Your task to perform on an android device: turn on notifications settings in the gmail app Image 0: 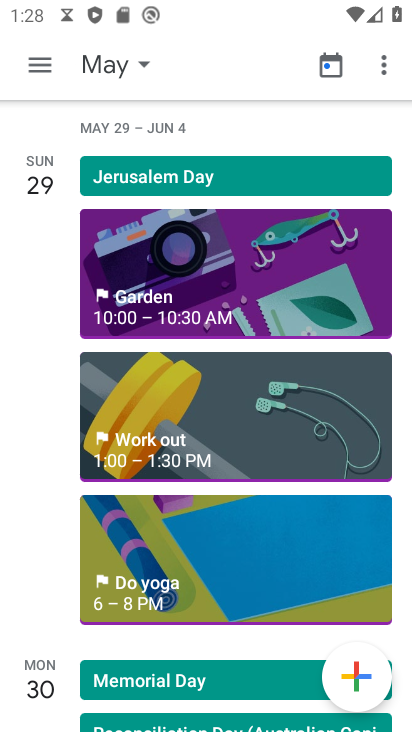
Step 0: press home button
Your task to perform on an android device: turn on notifications settings in the gmail app Image 1: 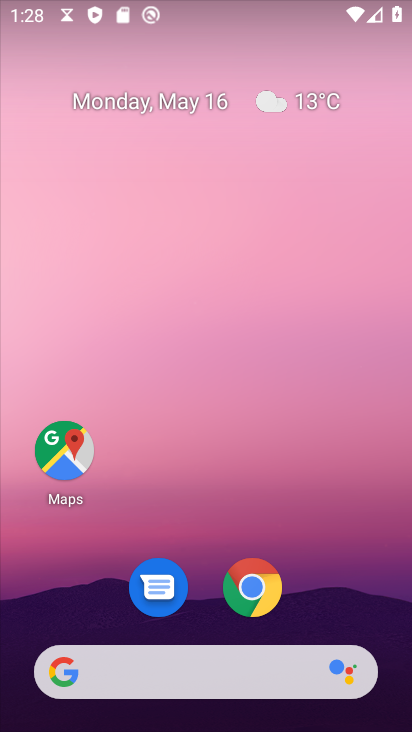
Step 1: drag from (243, 641) to (222, 194)
Your task to perform on an android device: turn on notifications settings in the gmail app Image 2: 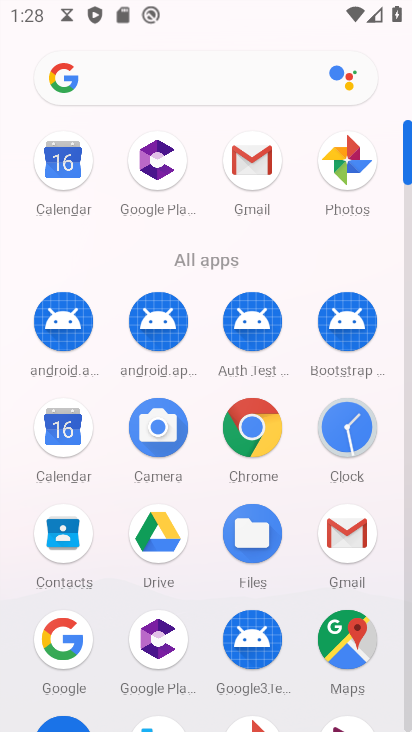
Step 2: click (243, 170)
Your task to perform on an android device: turn on notifications settings in the gmail app Image 3: 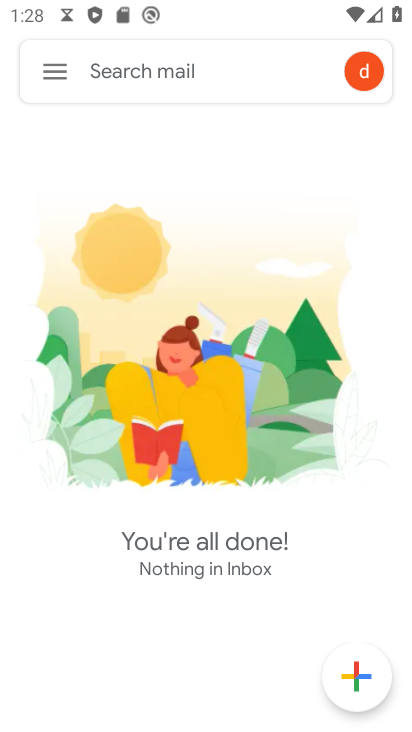
Step 3: click (50, 74)
Your task to perform on an android device: turn on notifications settings in the gmail app Image 4: 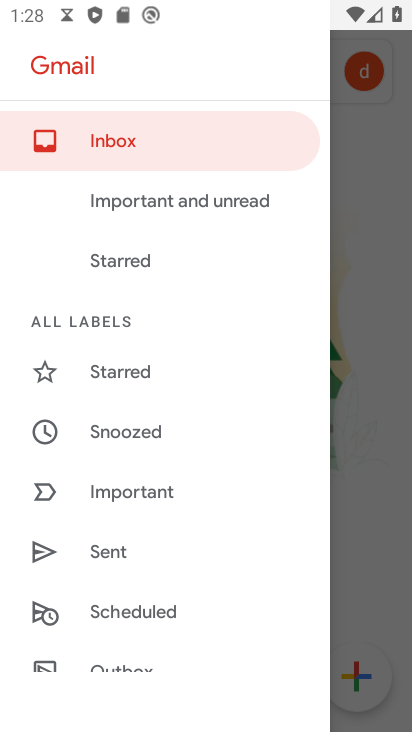
Step 4: drag from (150, 669) to (154, 303)
Your task to perform on an android device: turn on notifications settings in the gmail app Image 5: 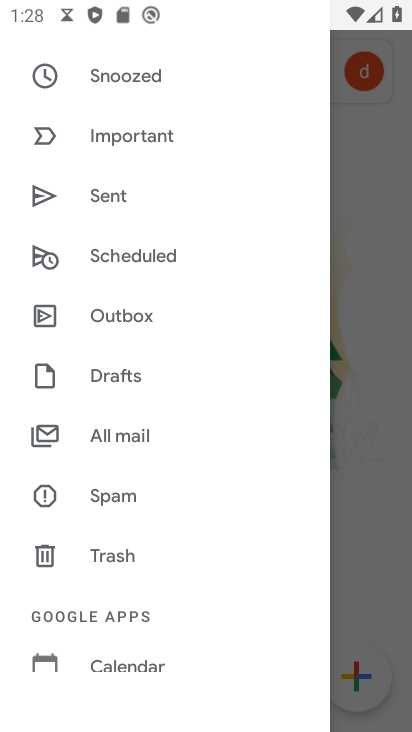
Step 5: drag from (76, 655) to (94, 303)
Your task to perform on an android device: turn on notifications settings in the gmail app Image 6: 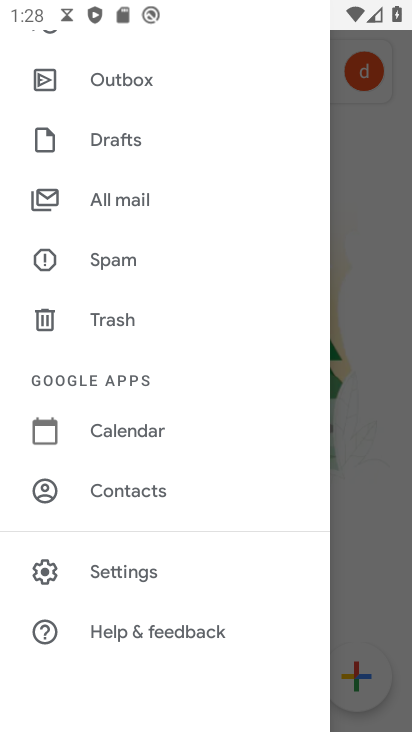
Step 6: click (136, 571)
Your task to perform on an android device: turn on notifications settings in the gmail app Image 7: 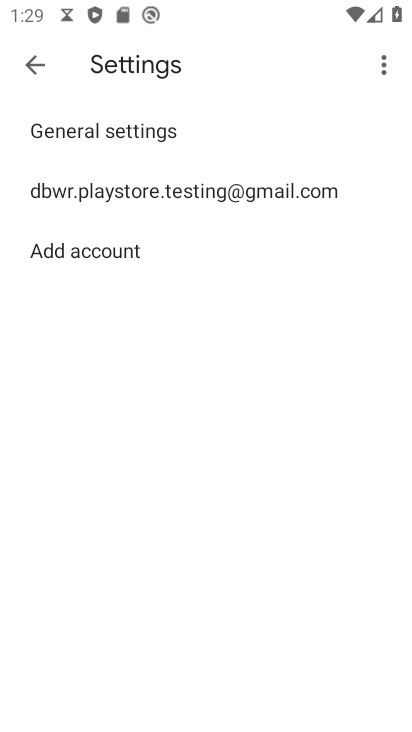
Step 7: click (91, 125)
Your task to perform on an android device: turn on notifications settings in the gmail app Image 8: 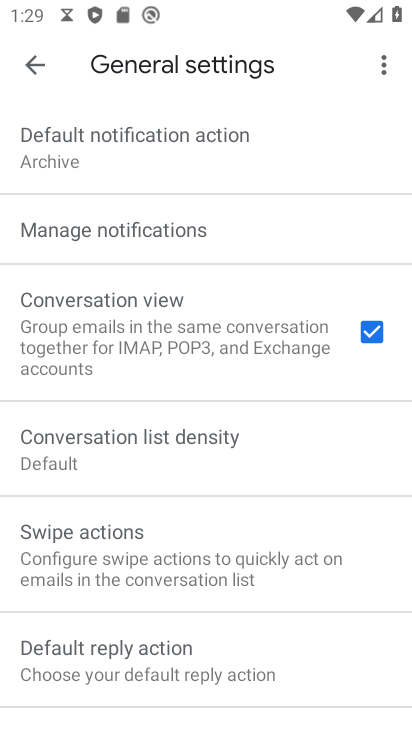
Step 8: click (96, 232)
Your task to perform on an android device: turn on notifications settings in the gmail app Image 9: 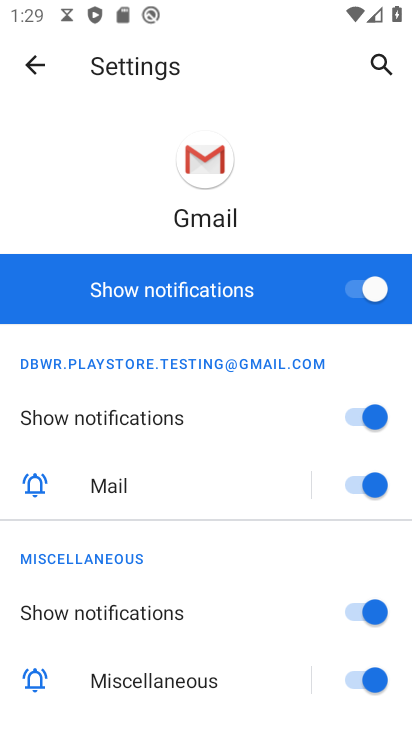
Step 9: task complete